Your task to perform on an android device: Open Amazon Image 0: 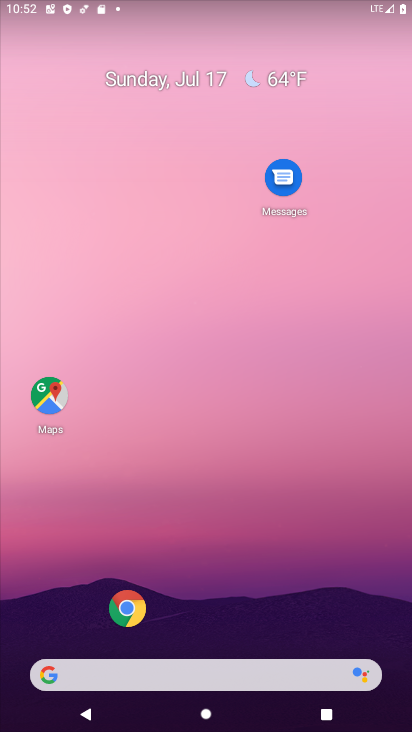
Step 0: click (122, 668)
Your task to perform on an android device: Open Amazon Image 1: 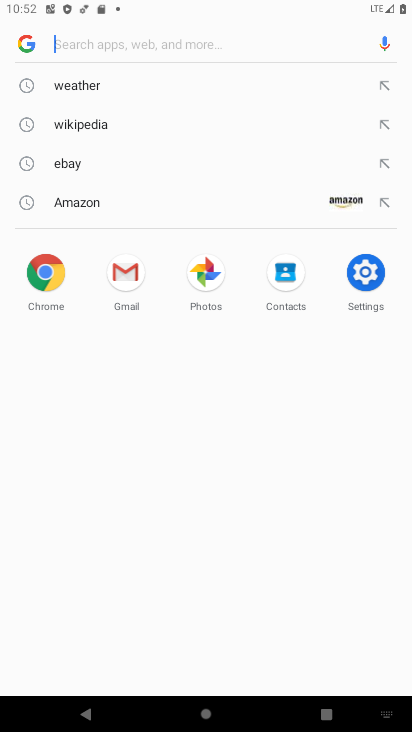
Step 1: click (64, 203)
Your task to perform on an android device: Open Amazon Image 2: 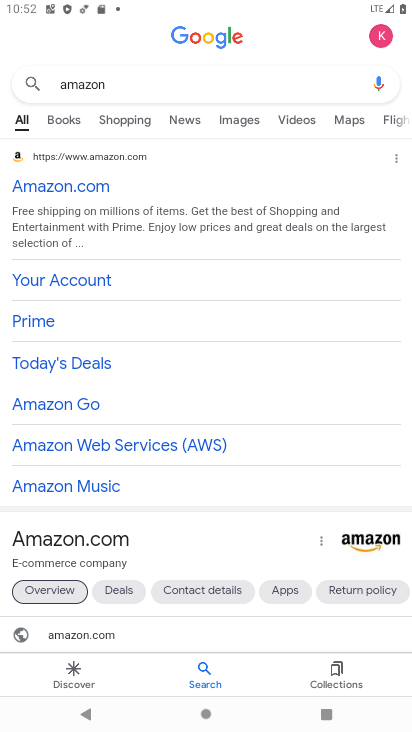
Step 2: task complete